Your task to perform on an android device: allow notifications from all sites in the chrome app Image 0: 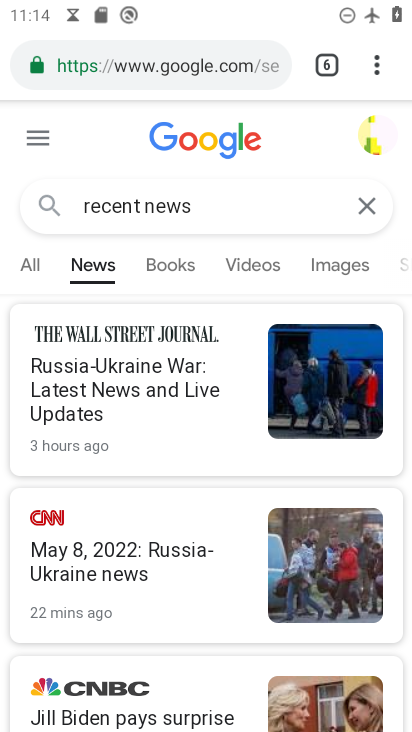
Step 0: press home button
Your task to perform on an android device: allow notifications from all sites in the chrome app Image 1: 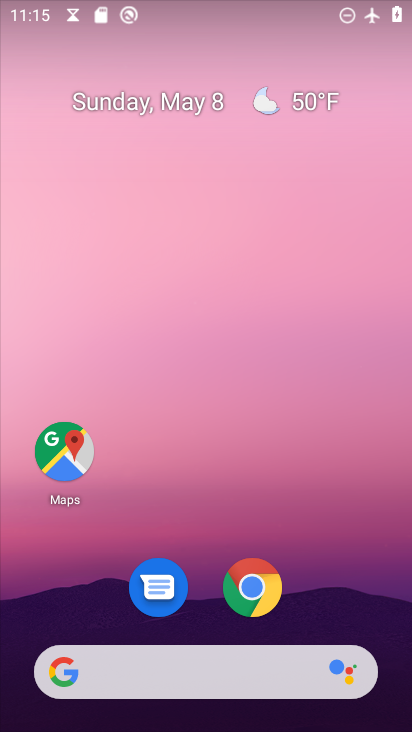
Step 1: click (238, 582)
Your task to perform on an android device: allow notifications from all sites in the chrome app Image 2: 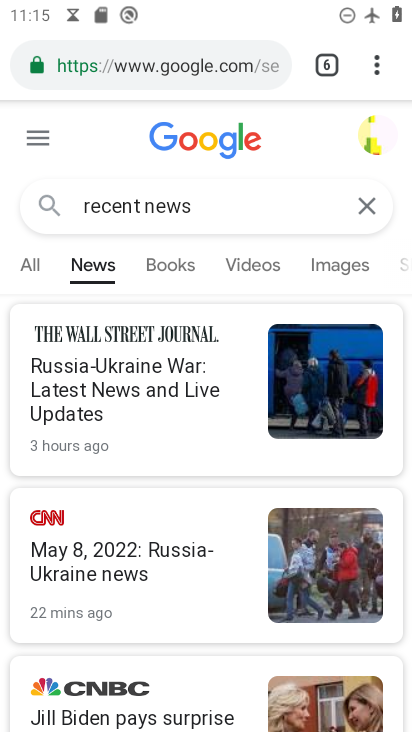
Step 2: drag from (378, 69) to (163, 632)
Your task to perform on an android device: allow notifications from all sites in the chrome app Image 3: 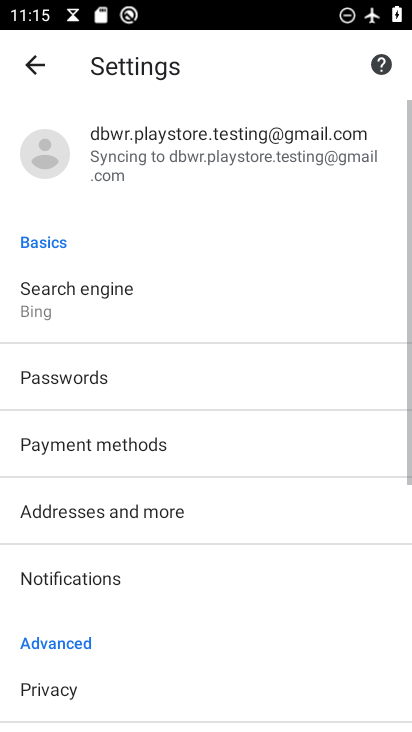
Step 3: click (83, 576)
Your task to perform on an android device: allow notifications from all sites in the chrome app Image 4: 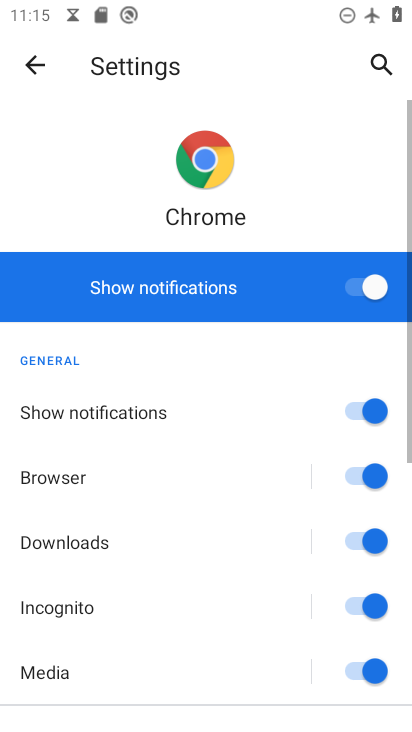
Step 4: task complete